Your task to perform on an android device: Open settings Image 0: 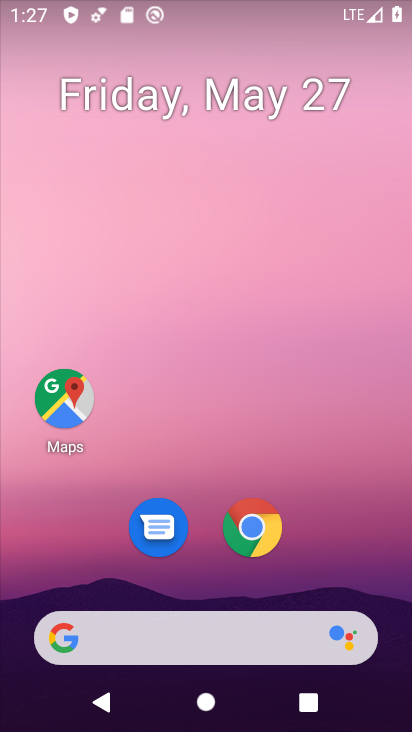
Step 0: drag from (161, 702) to (161, 125)
Your task to perform on an android device: Open settings Image 1: 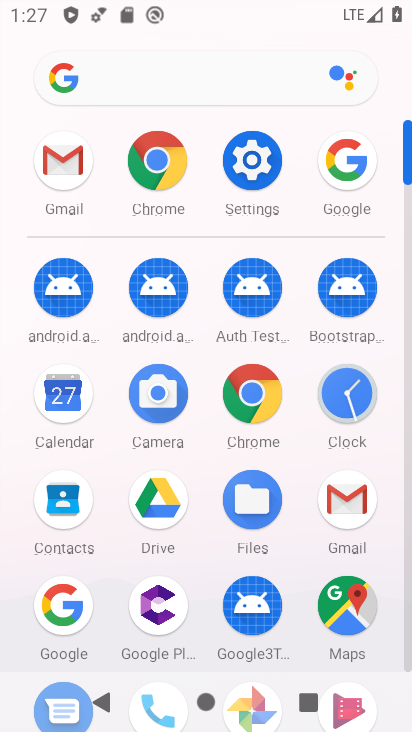
Step 1: click (265, 159)
Your task to perform on an android device: Open settings Image 2: 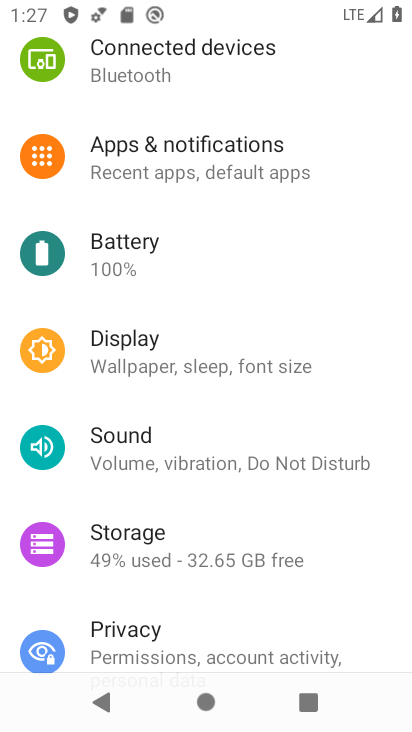
Step 2: task complete